Your task to perform on an android device: turn on bluetooth scan Image 0: 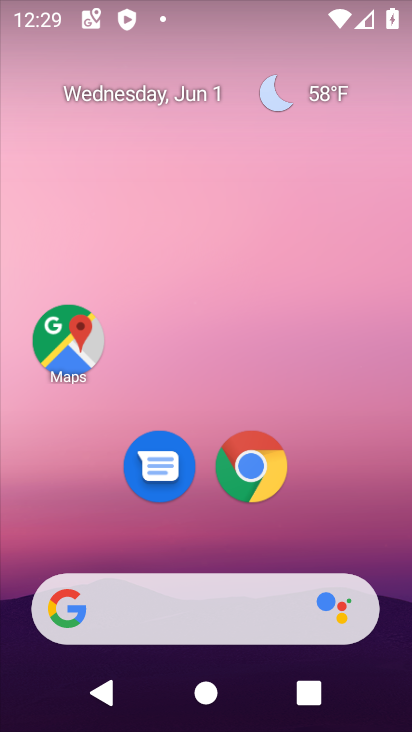
Step 0: drag from (387, 590) to (288, 260)
Your task to perform on an android device: turn on bluetooth scan Image 1: 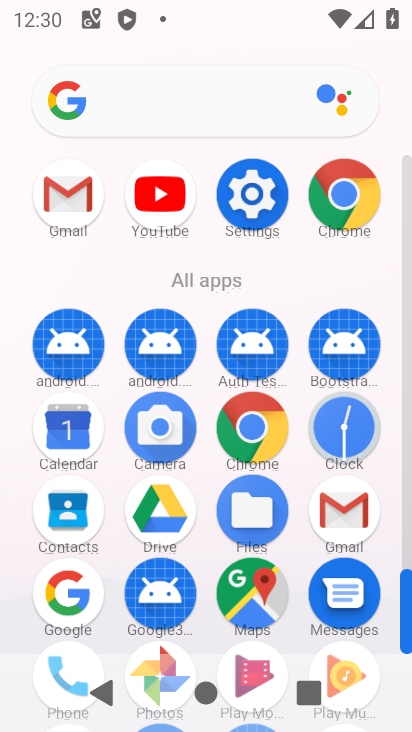
Step 1: click (265, 202)
Your task to perform on an android device: turn on bluetooth scan Image 2: 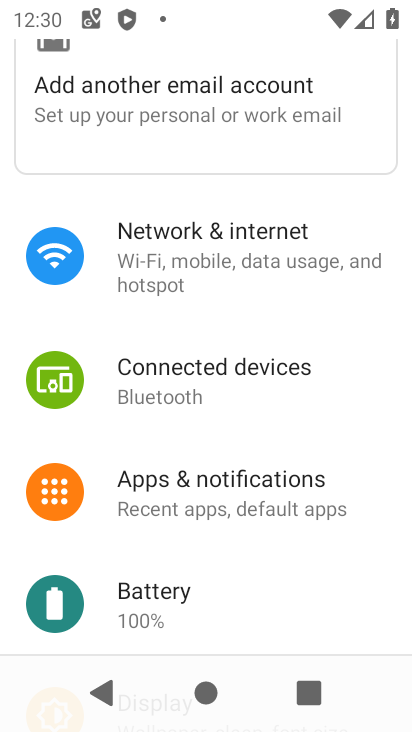
Step 2: drag from (291, 622) to (249, 226)
Your task to perform on an android device: turn on bluetooth scan Image 3: 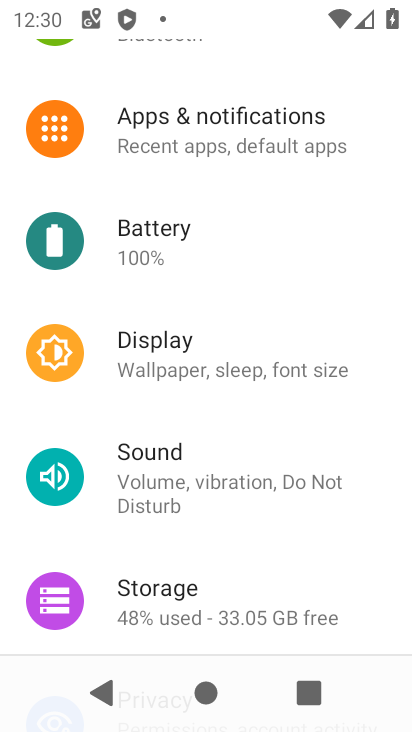
Step 3: drag from (263, 570) to (237, 201)
Your task to perform on an android device: turn on bluetooth scan Image 4: 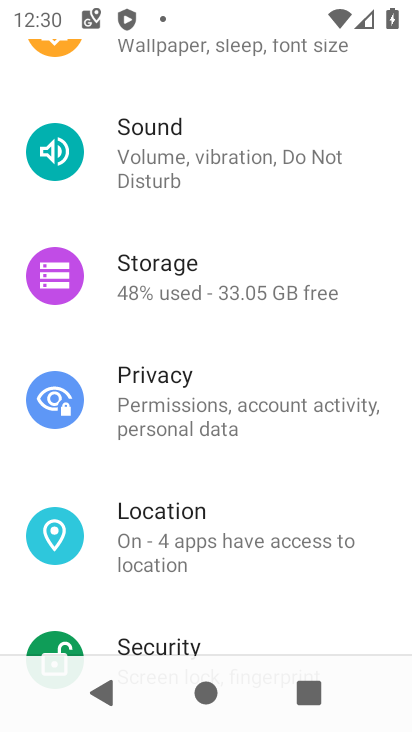
Step 4: click (259, 538)
Your task to perform on an android device: turn on bluetooth scan Image 5: 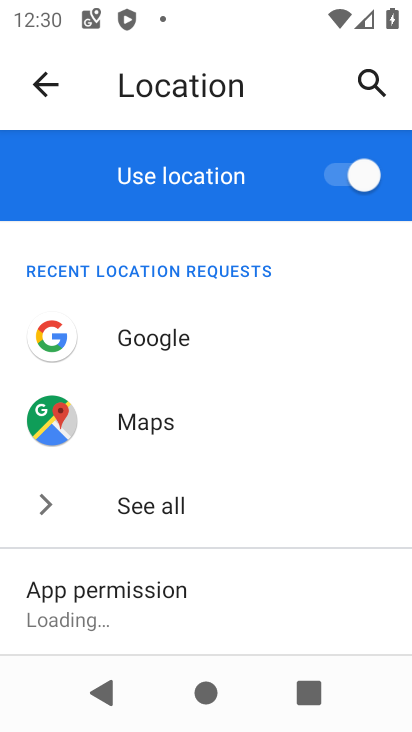
Step 5: drag from (303, 574) to (260, 314)
Your task to perform on an android device: turn on bluetooth scan Image 6: 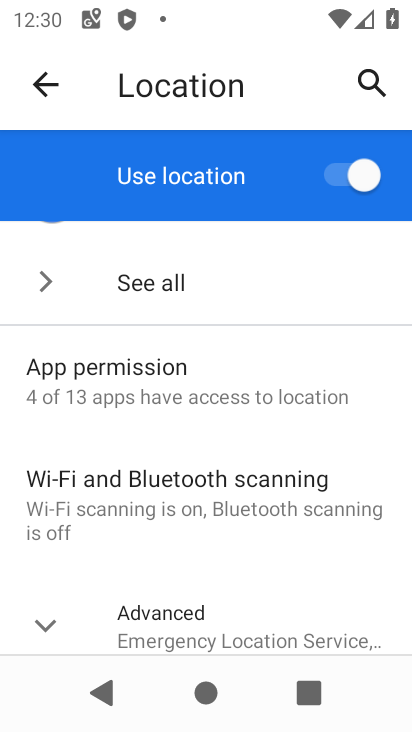
Step 6: click (308, 485)
Your task to perform on an android device: turn on bluetooth scan Image 7: 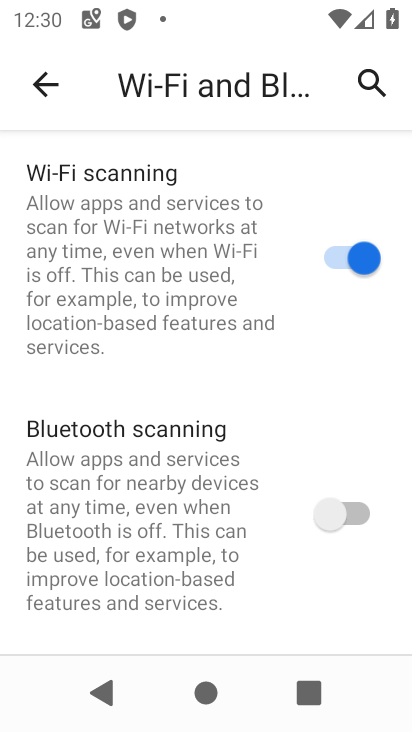
Step 7: click (349, 514)
Your task to perform on an android device: turn on bluetooth scan Image 8: 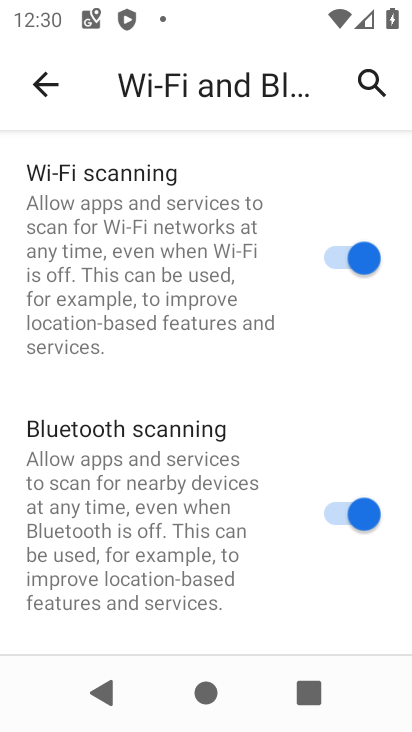
Step 8: task complete